Your task to perform on an android device: turn off notifications in google photos Image 0: 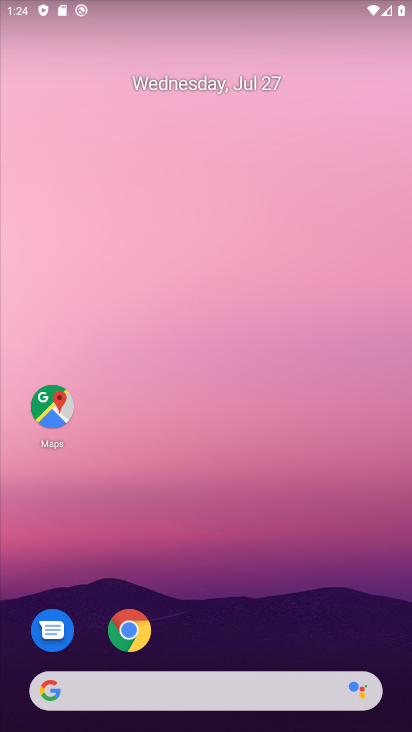
Step 0: drag from (352, 648) to (333, 206)
Your task to perform on an android device: turn off notifications in google photos Image 1: 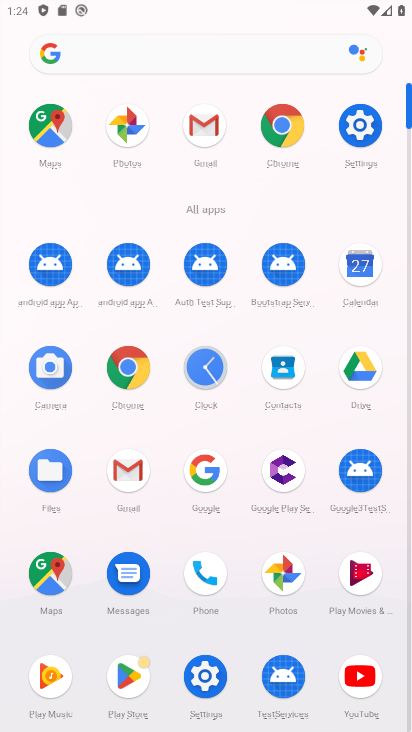
Step 1: click (282, 577)
Your task to perform on an android device: turn off notifications in google photos Image 2: 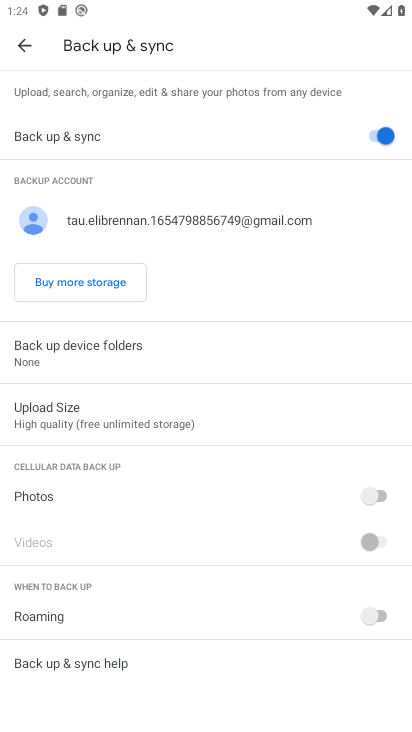
Step 2: drag from (298, 547) to (283, 182)
Your task to perform on an android device: turn off notifications in google photos Image 3: 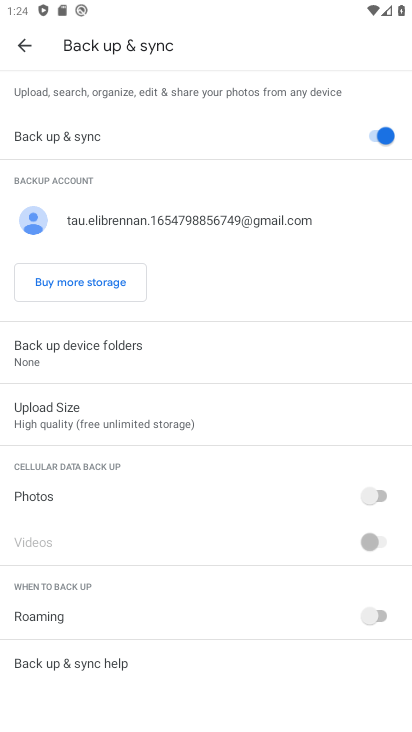
Step 3: press back button
Your task to perform on an android device: turn off notifications in google photos Image 4: 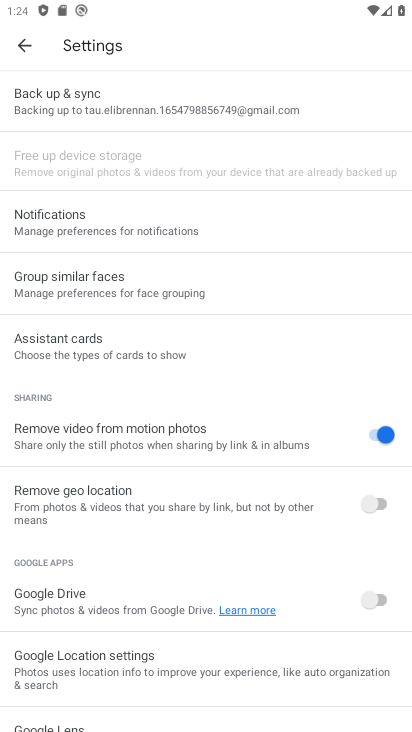
Step 4: click (48, 217)
Your task to perform on an android device: turn off notifications in google photos Image 5: 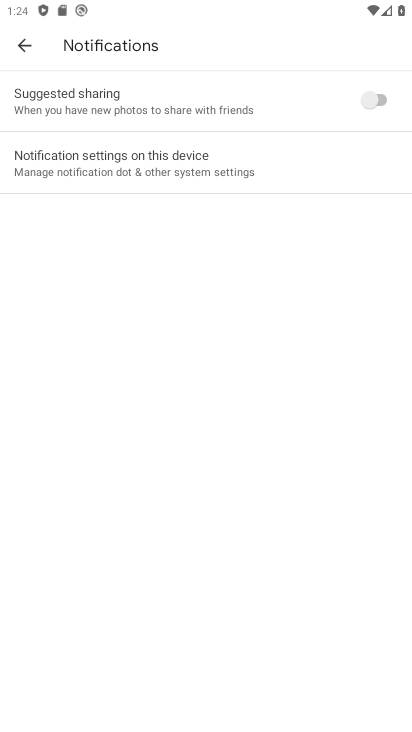
Step 5: click (78, 163)
Your task to perform on an android device: turn off notifications in google photos Image 6: 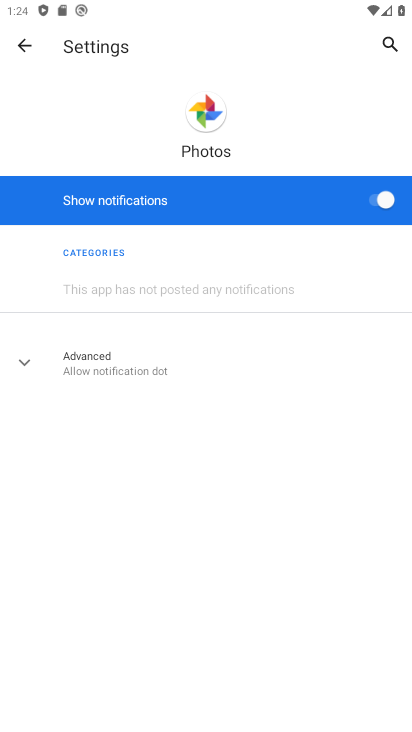
Step 6: click (370, 202)
Your task to perform on an android device: turn off notifications in google photos Image 7: 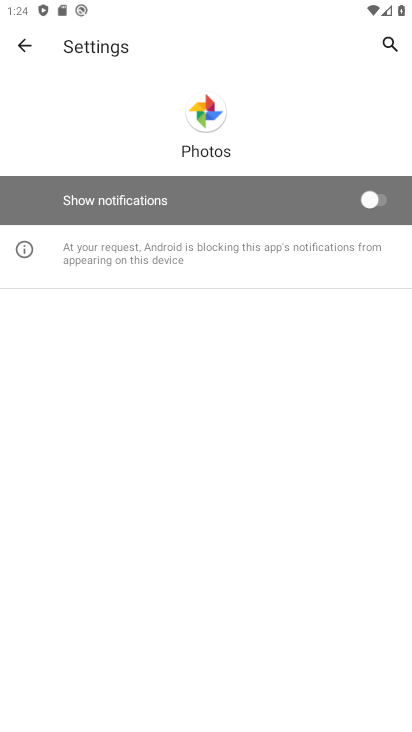
Step 7: task complete